Your task to perform on an android device: Clear the cart on target.com. Image 0: 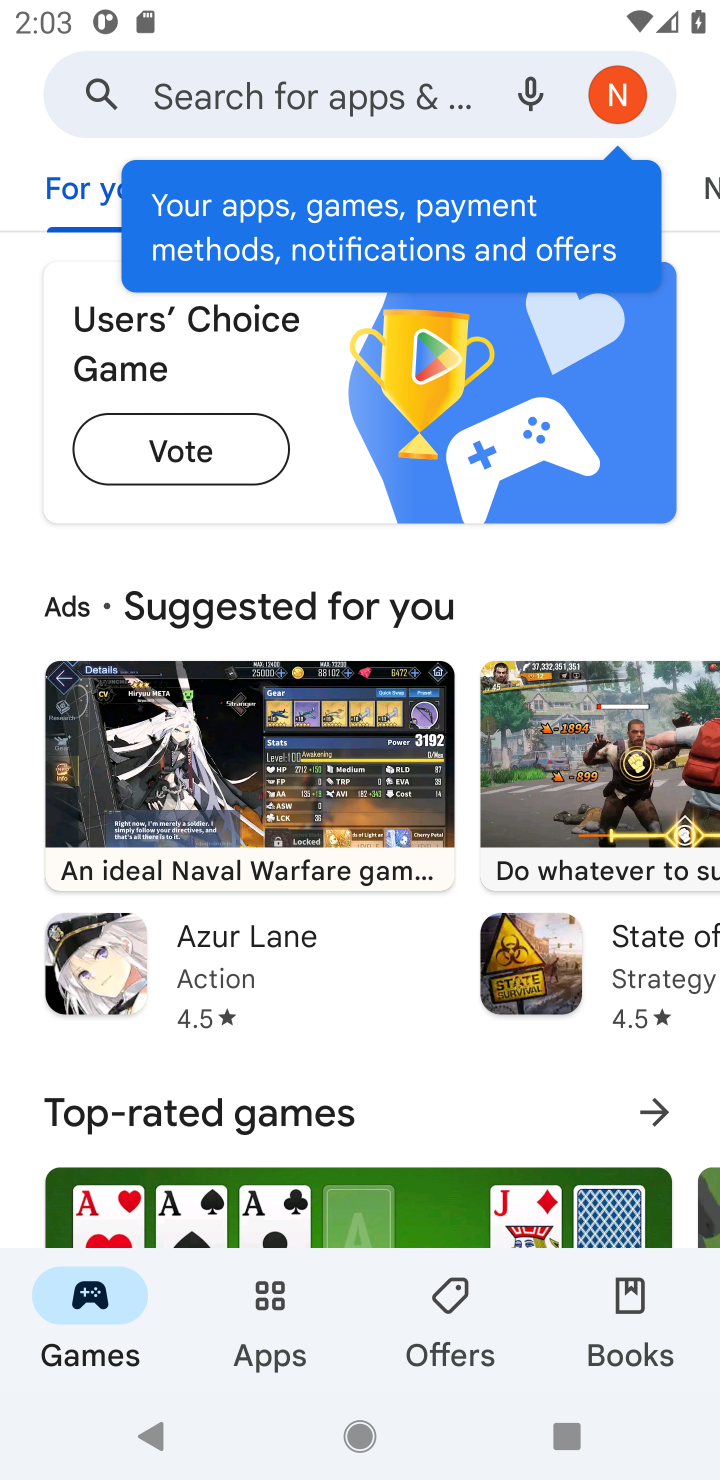
Step 0: press home button
Your task to perform on an android device: Clear the cart on target.com. Image 1: 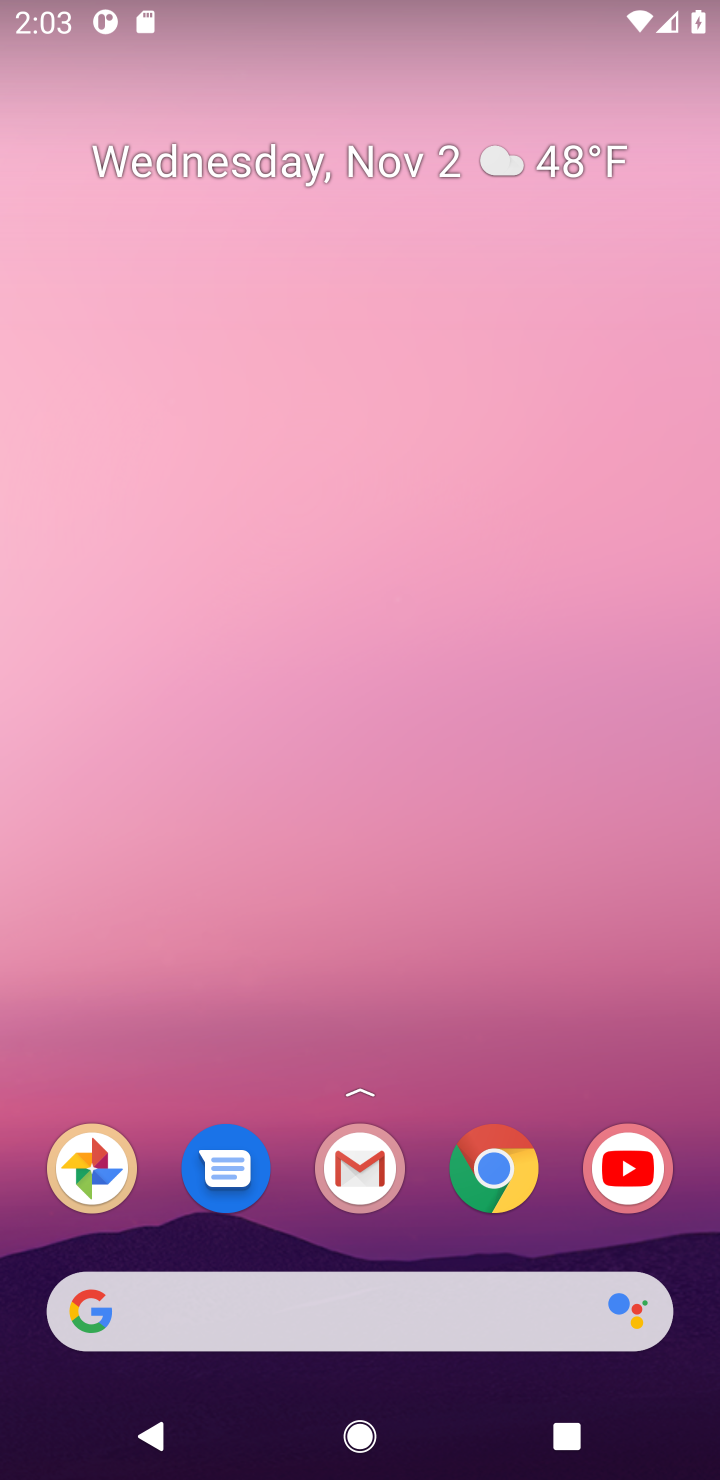
Step 1: click (329, 1313)
Your task to perform on an android device: Clear the cart on target.com. Image 2: 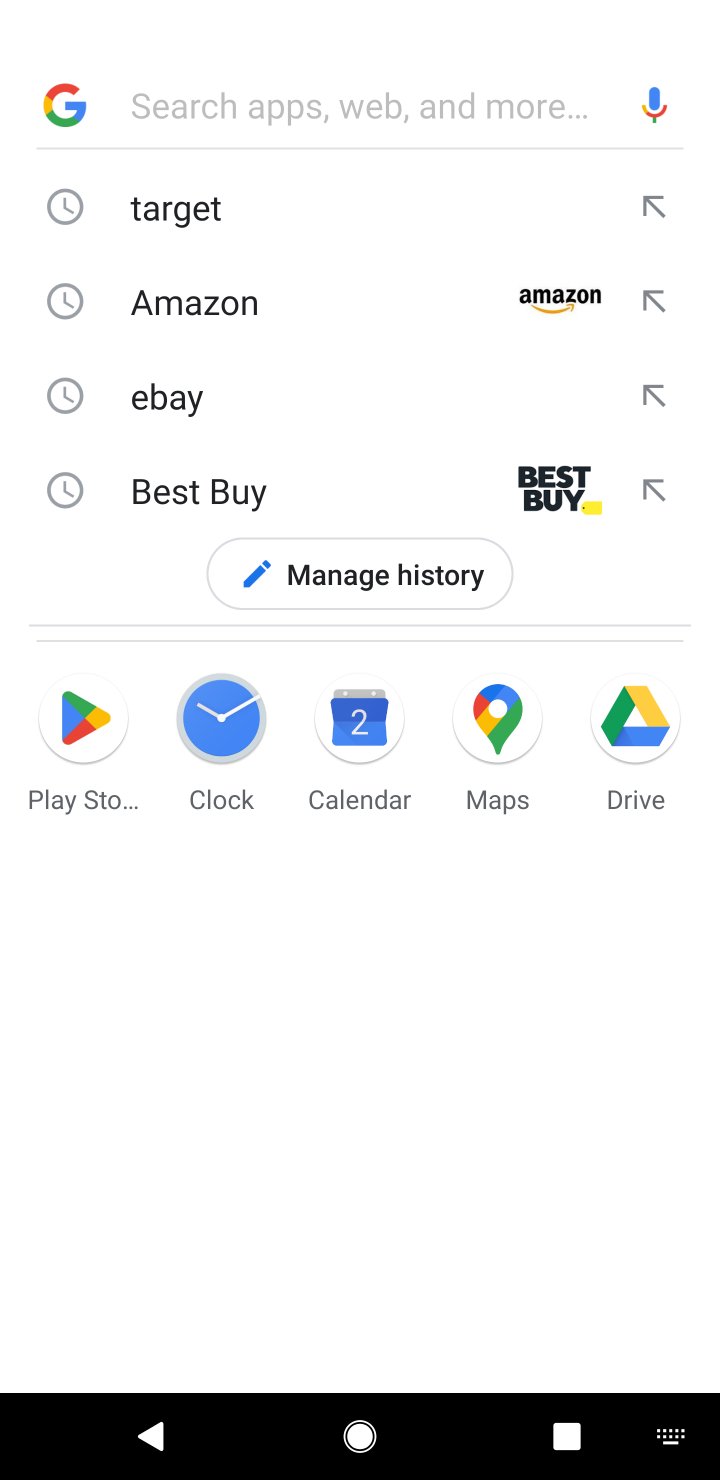
Step 2: type "target.com"
Your task to perform on an android device: Clear the cart on target.com. Image 3: 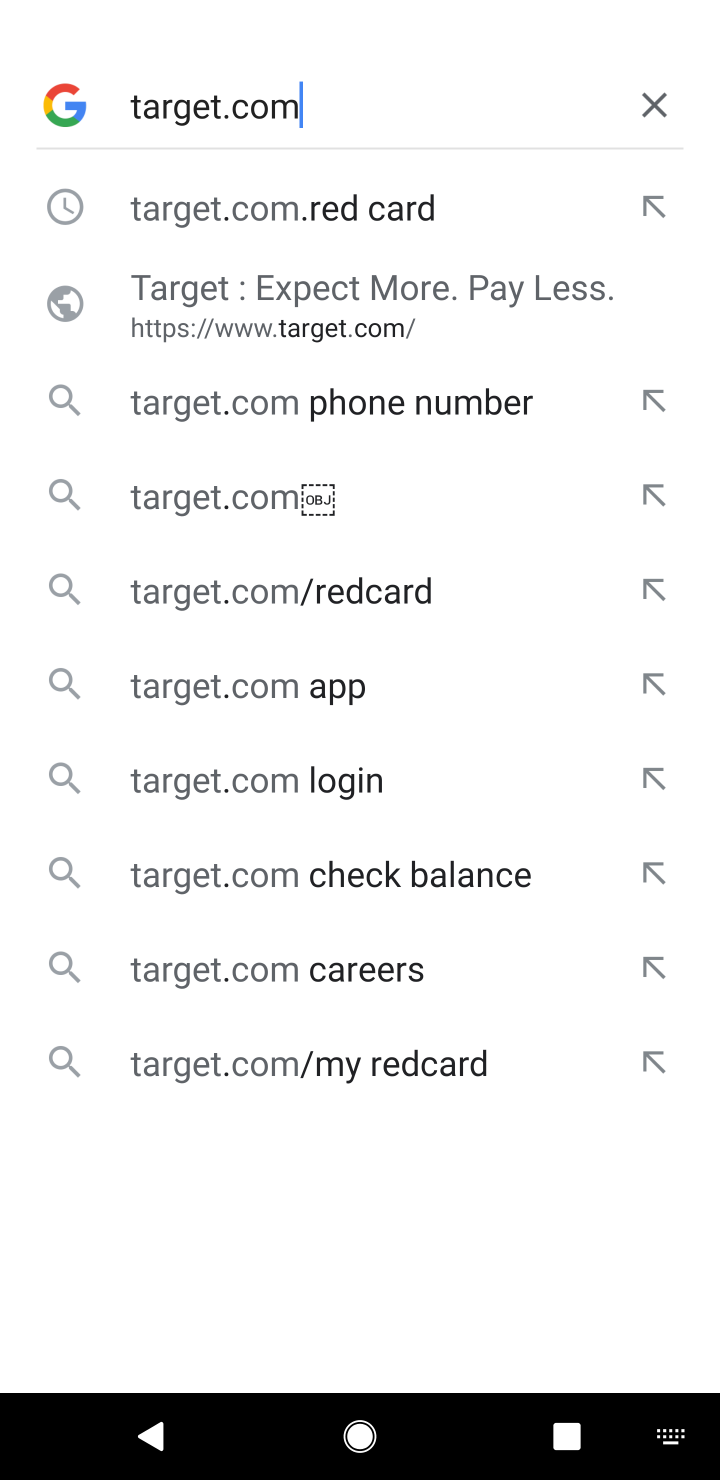
Step 3: click (313, 299)
Your task to perform on an android device: Clear the cart on target.com. Image 4: 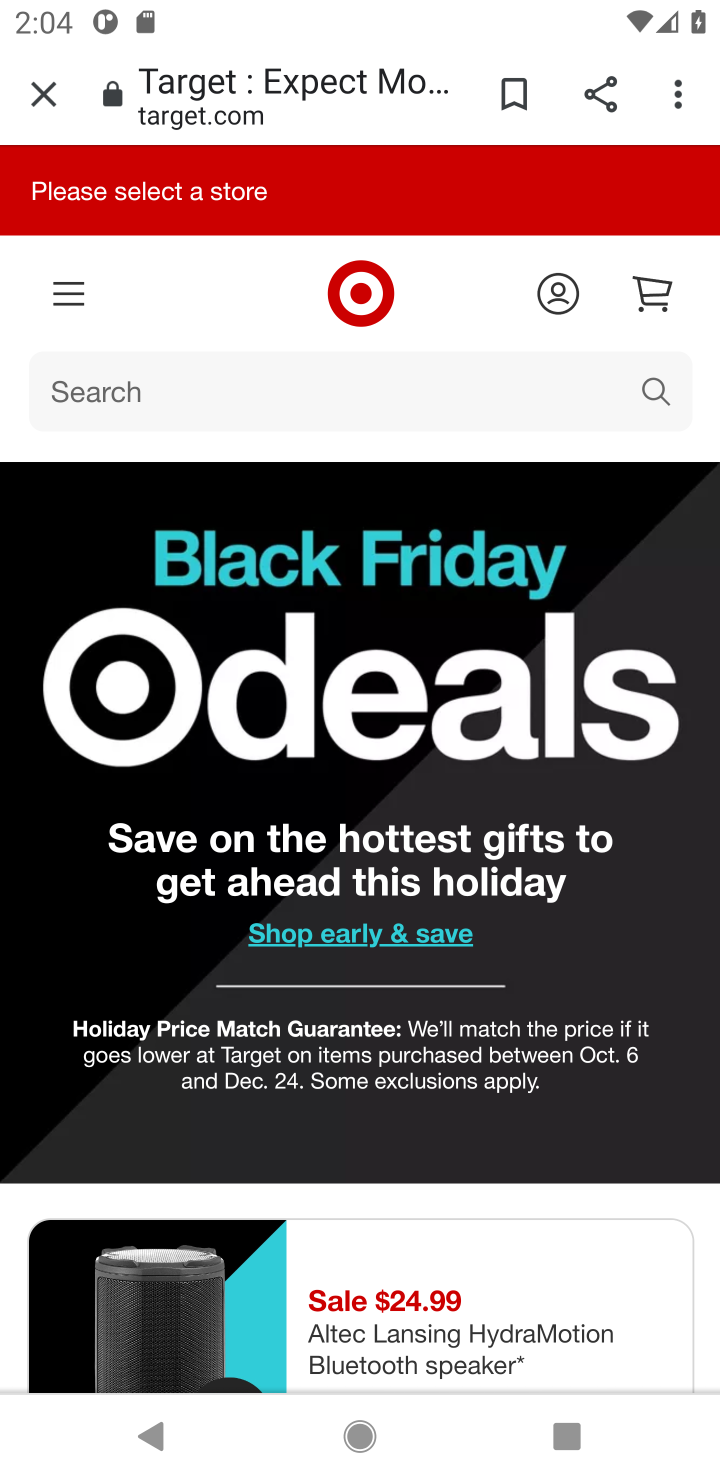
Step 4: click (655, 295)
Your task to perform on an android device: Clear the cart on target.com. Image 5: 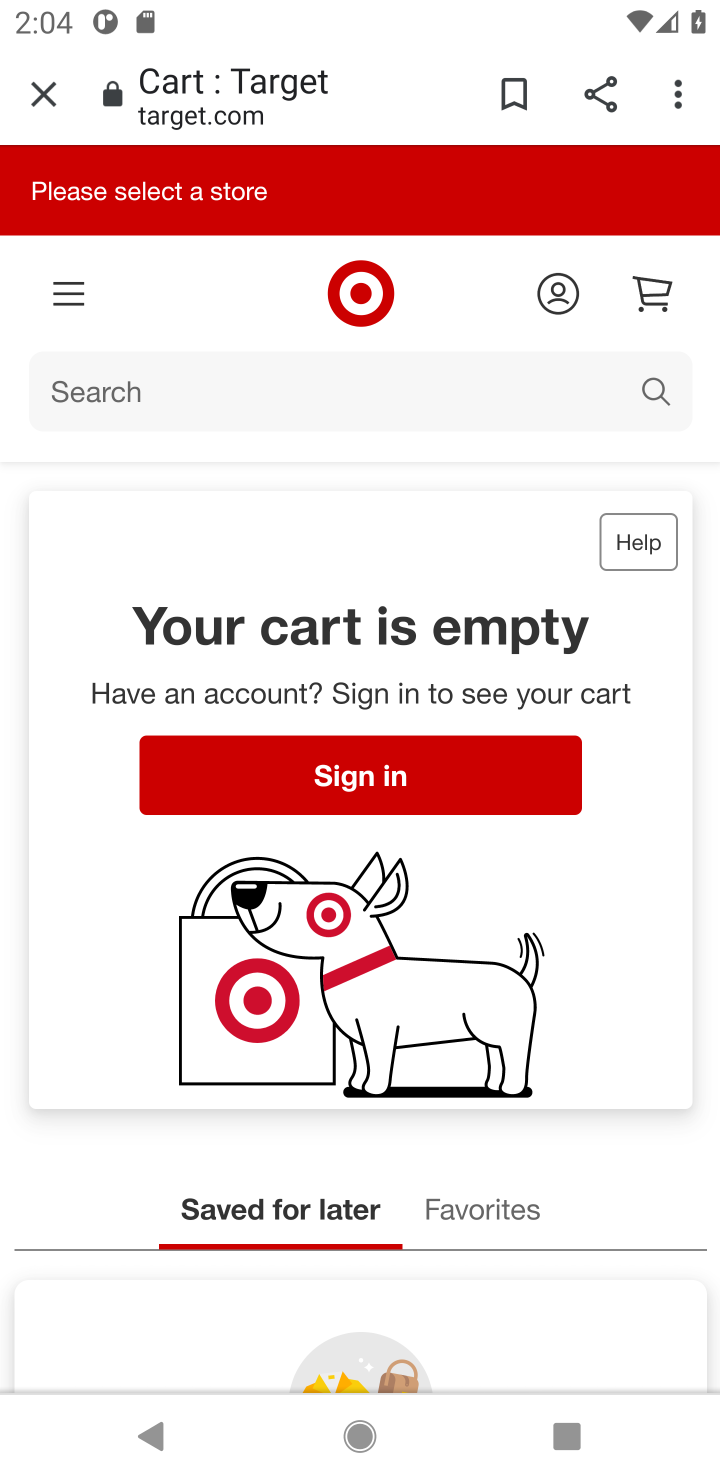
Step 5: task complete